Your task to perform on an android device: toggle notifications settings in the gmail app Image 0: 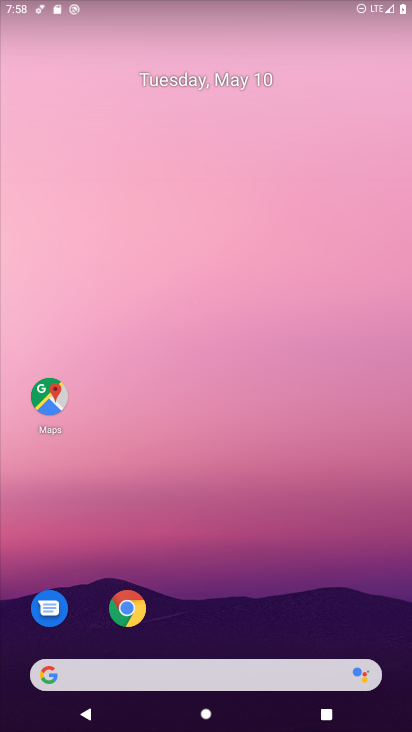
Step 0: drag from (264, 560) to (269, 360)
Your task to perform on an android device: toggle notifications settings in the gmail app Image 1: 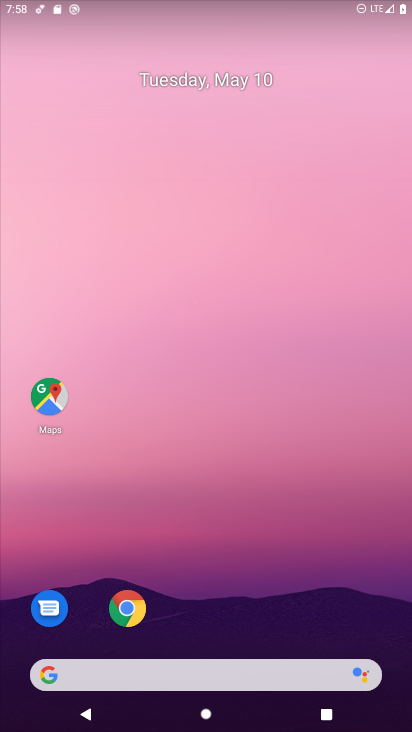
Step 1: drag from (223, 586) to (230, 259)
Your task to perform on an android device: toggle notifications settings in the gmail app Image 2: 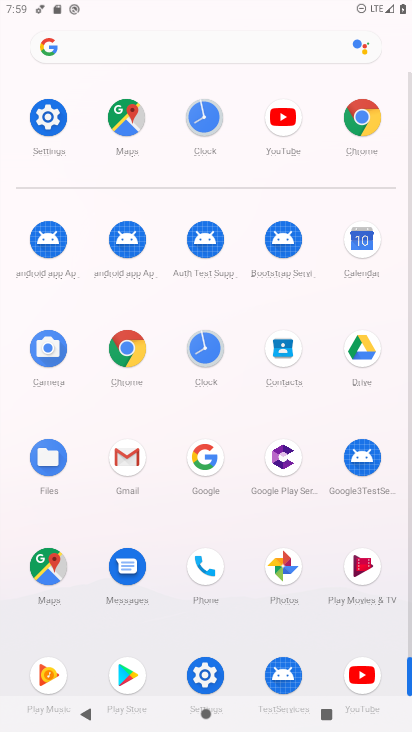
Step 2: click (120, 461)
Your task to perform on an android device: toggle notifications settings in the gmail app Image 3: 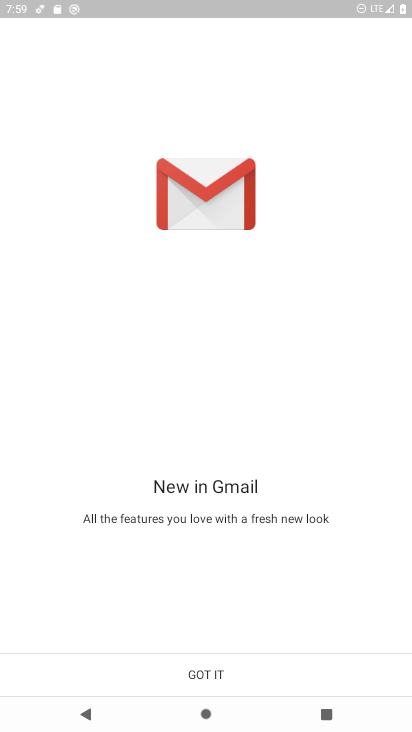
Step 3: click (200, 672)
Your task to perform on an android device: toggle notifications settings in the gmail app Image 4: 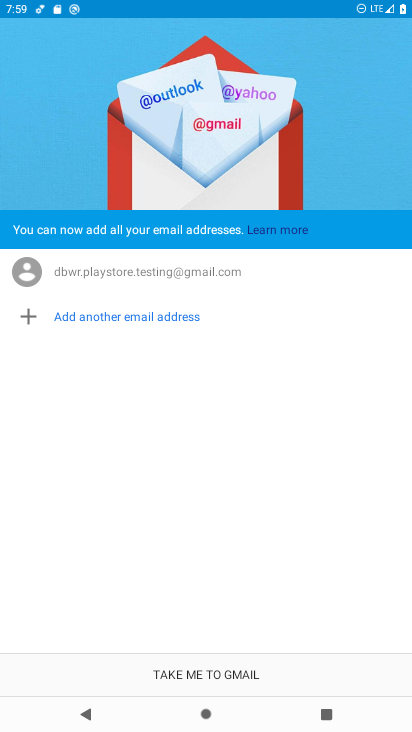
Step 4: click (200, 666)
Your task to perform on an android device: toggle notifications settings in the gmail app Image 5: 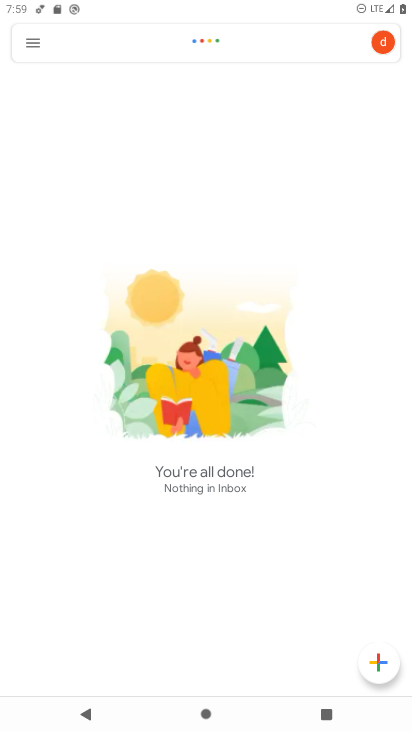
Step 5: click (26, 40)
Your task to perform on an android device: toggle notifications settings in the gmail app Image 6: 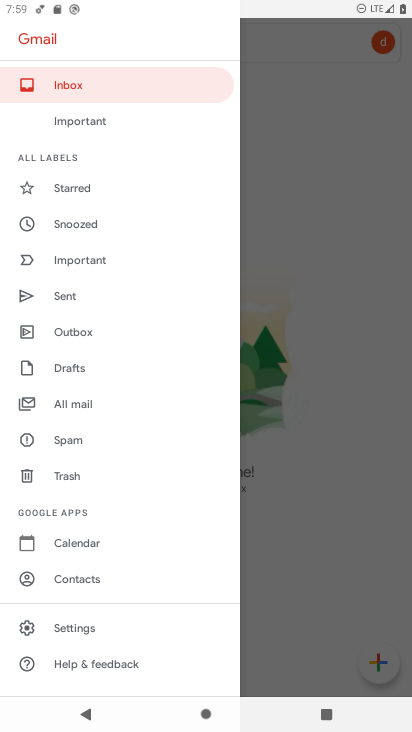
Step 6: click (86, 622)
Your task to perform on an android device: toggle notifications settings in the gmail app Image 7: 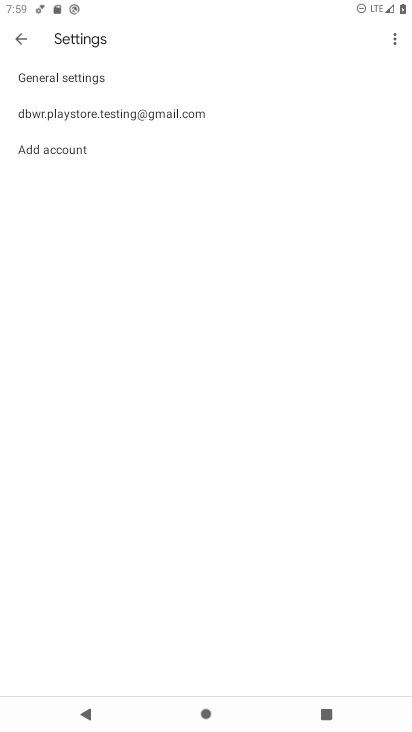
Step 7: click (82, 109)
Your task to perform on an android device: toggle notifications settings in the gmail app Image 8: 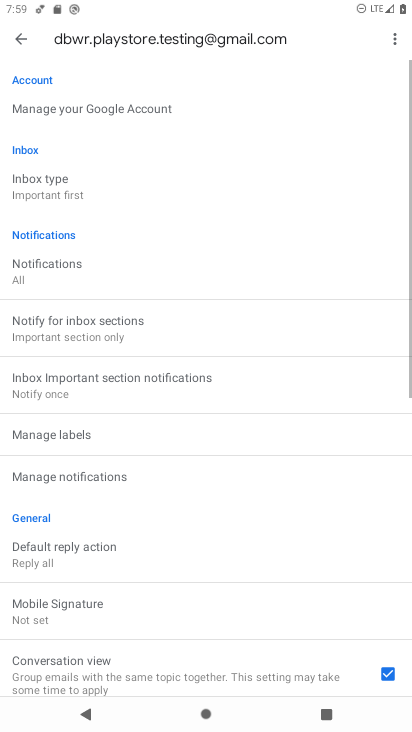
Step 8: click (71, 277)
Your task to perform on an android device: toggle notifications settings in the gmail app Image 9: 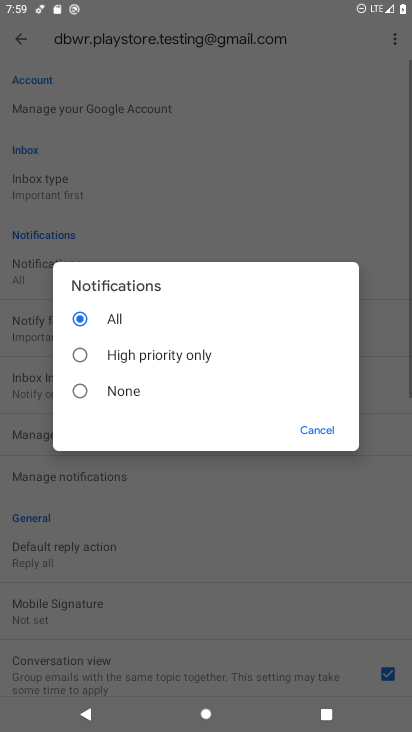
Step 9: click (118, 390)
Your task to perform on an android device: toggle notifications settings in the gmail app Image 10: 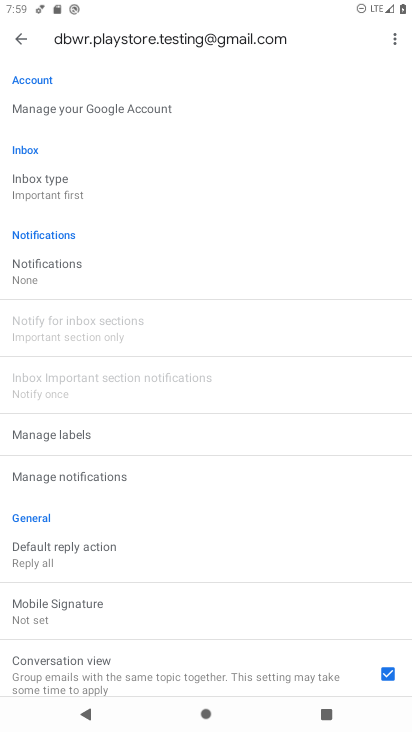
Step 10: task complete